Your task to perform on an android device: open app "Messages" (install if not already installed) Image 0: 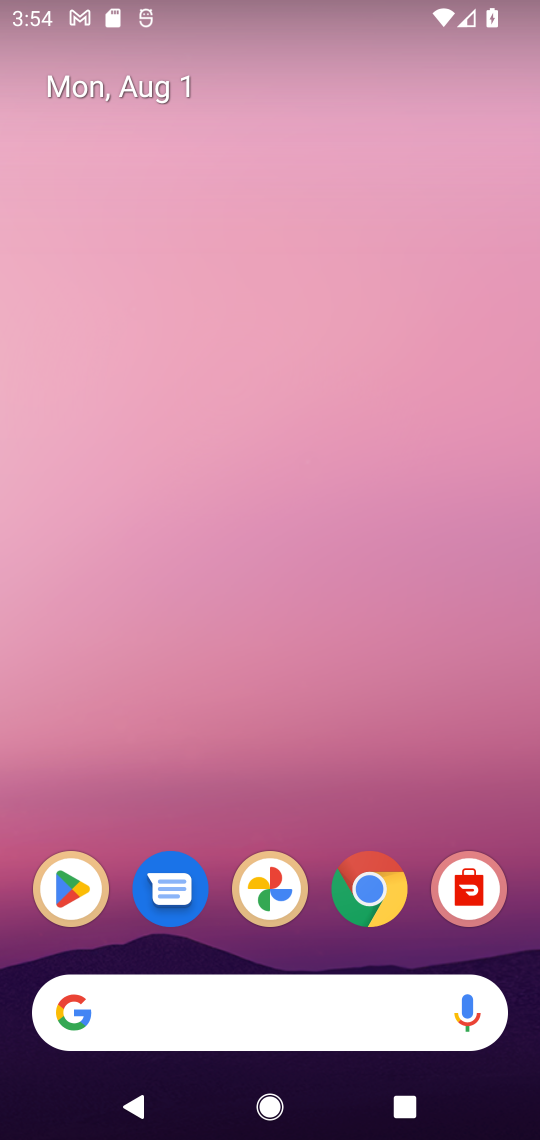
Step 0: click (58, 903)
Your task to perform on an android device: open app "Messages" (install if not already installed) Image 1: 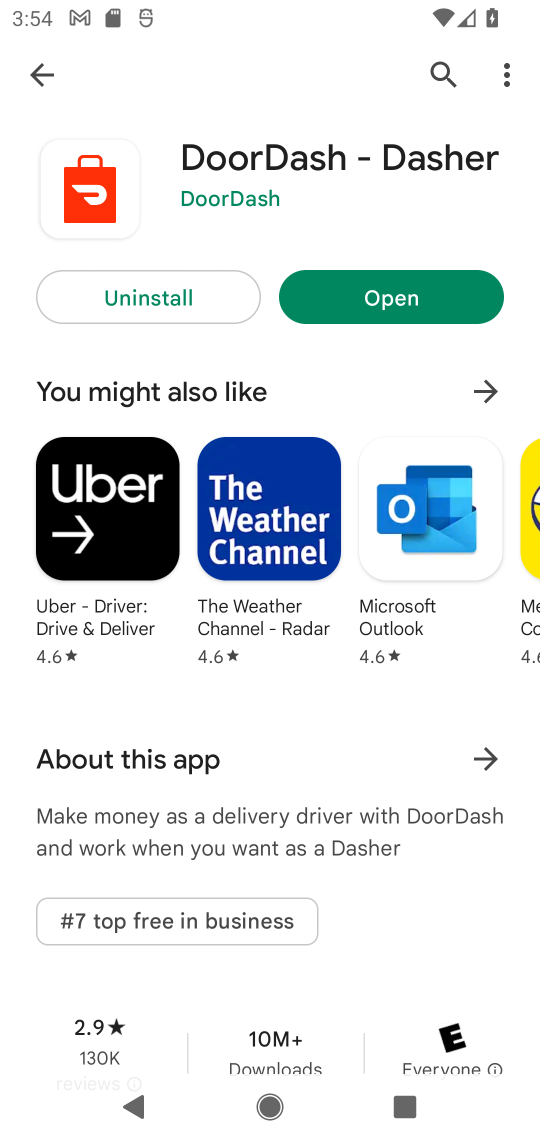
Step 1: click (437, 70)
Your task to perform on an android device: open app "Messages" (install if not already installed) Image 2: 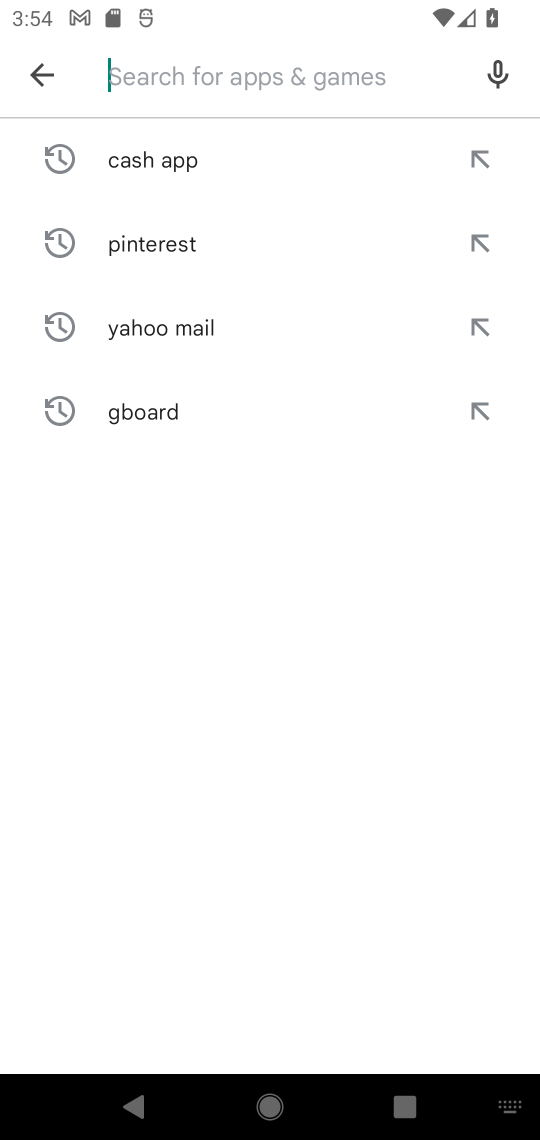
Step 2: type "Messages"
Your task to perform on an android device: open app "Messages" (install if not already installed) Image 3: 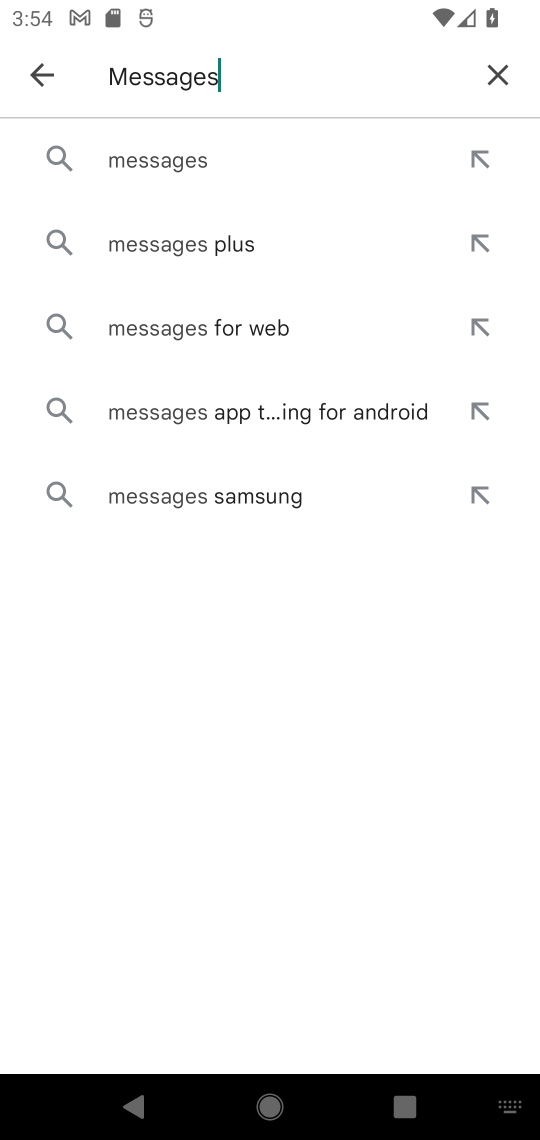
Step 3: click (245, 152)
Your task to perform on an android device: open app "Messages" (install if not already installed) Image 4: 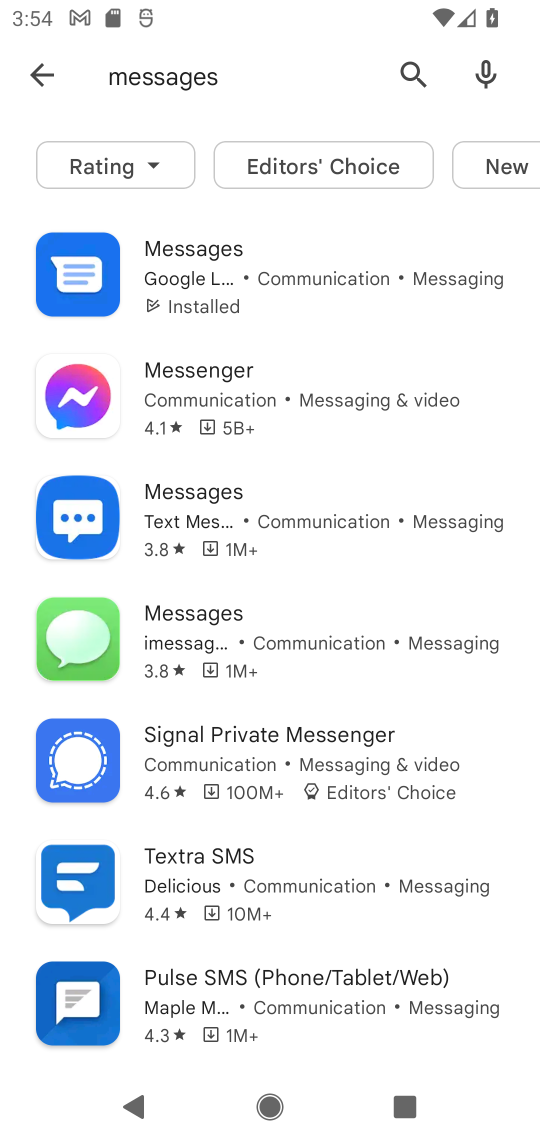
Step 4: click (237, 281)
Your task to perform on an android device: open app "Messages" (install if not already installed) Image 5: 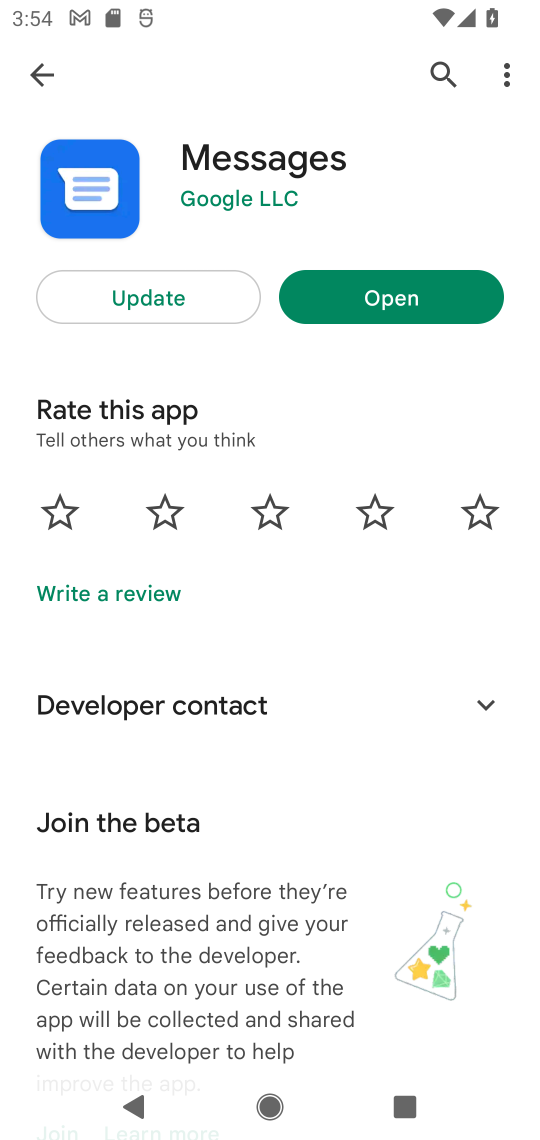
Step 5: click (360, 311)
Your task to perform on an android device: open app "Messages" (install if not already installed) Image 6: 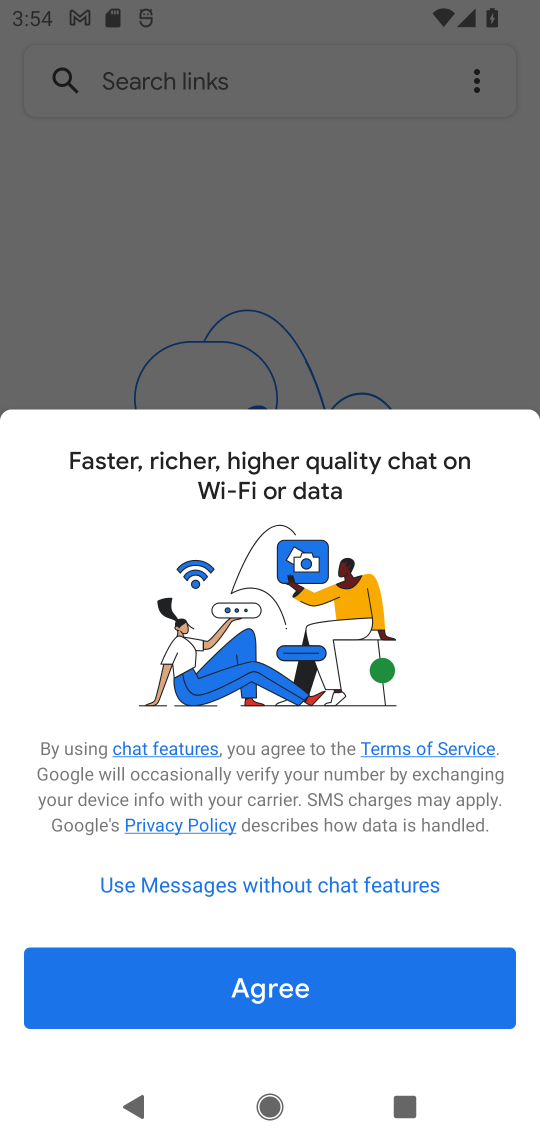
Step 6: task complete